Your task to perform on an android device: Open location settings Image 0: 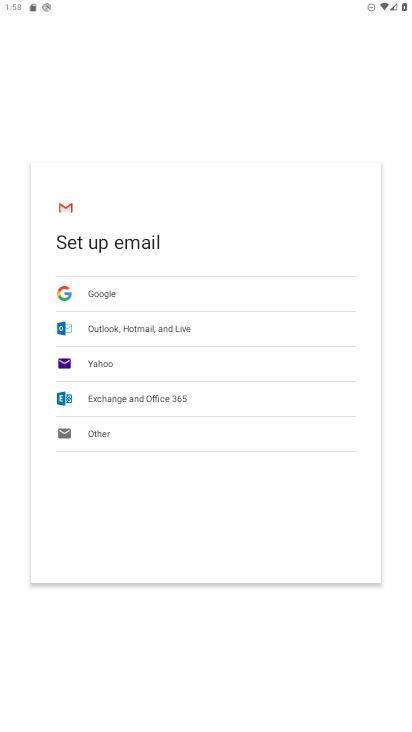
Step 0: press home button
Your task to perform on an android device: Open location settings Image 1: 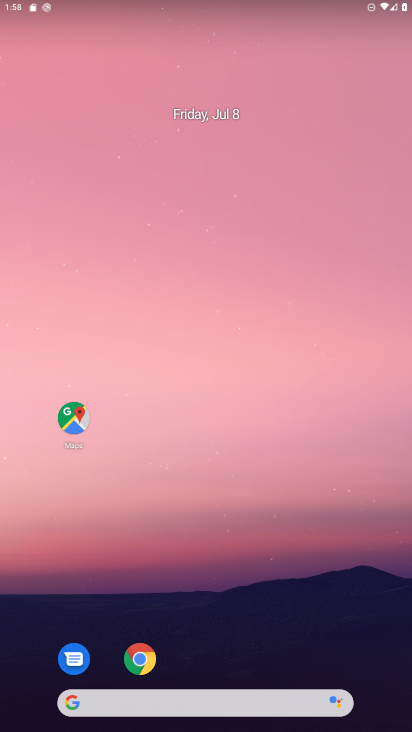
Step 1: drag from (241, 660) to (261, 78)
Your task to perform on an android device: Open location settings Image 2: 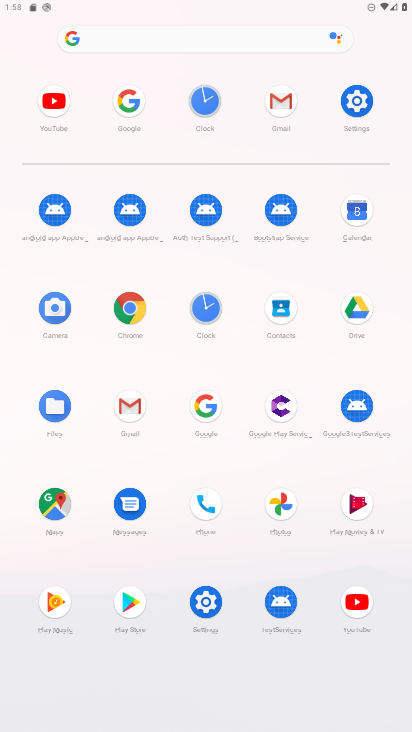
Step 2: click (357, 102)
Your task to perform on an android device: Open location settings Image 3: 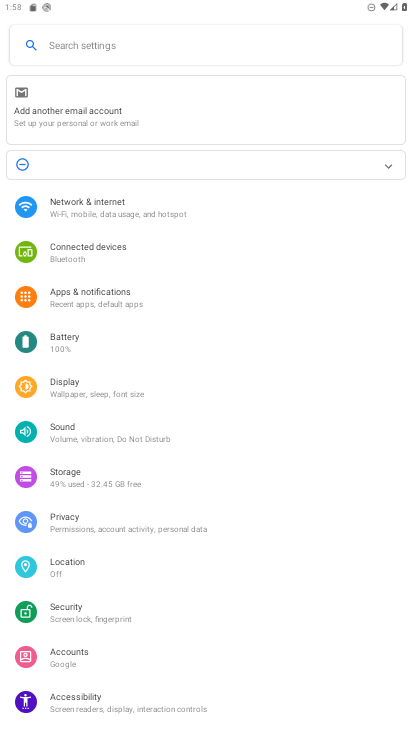
Step 3: click (63, 571)
Your task to perform on an android device: Open location settings Image 4: 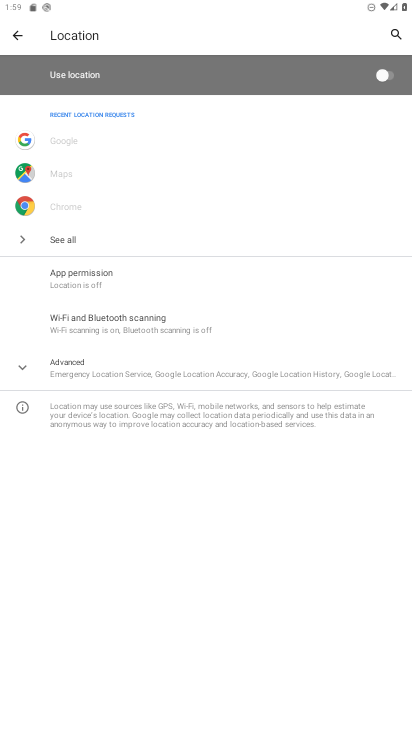
Step 4: task complete